Your task to perform on an android device: delete a single message in the gmail app Image 0: 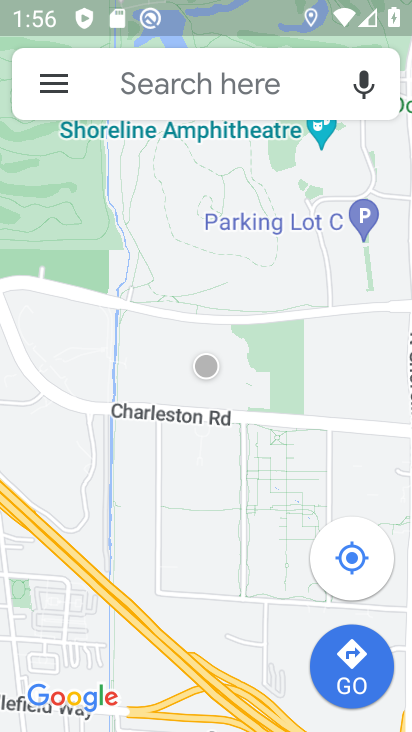
Step 0: press home button
Your task to perform on an android device: delete a single message in the gmail app Image 1: 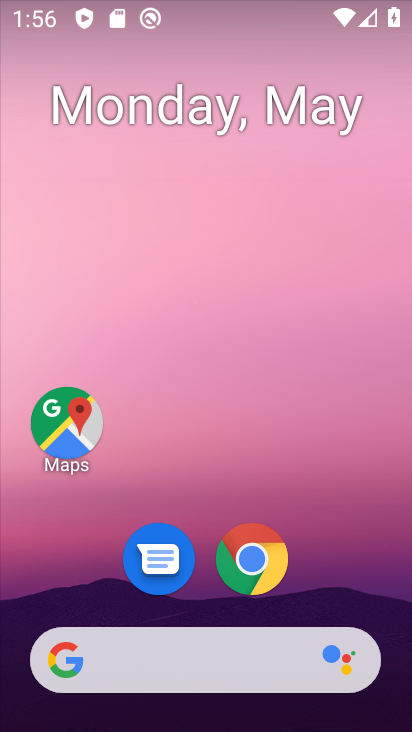
Step 1: drag from (354, 578) to (373, 10)
Your task to perform on an android device: delete a single message in the gmail app Image 2: 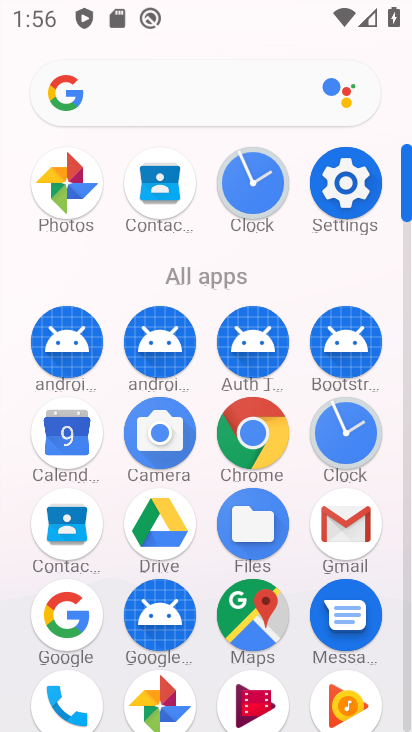
Step 2: click (331, 532)
Your task to perform on an android device: delete a single message in the gmail app Image 3: 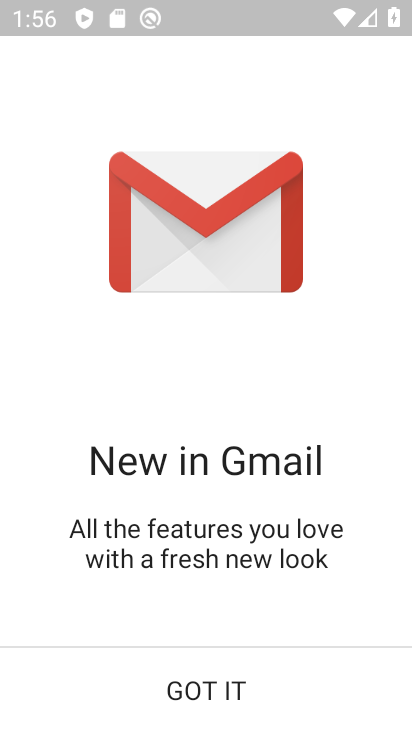
Step 3: click (208, 692)
Your task to perform on an android device: delete a single message in the gmail app Image 4: 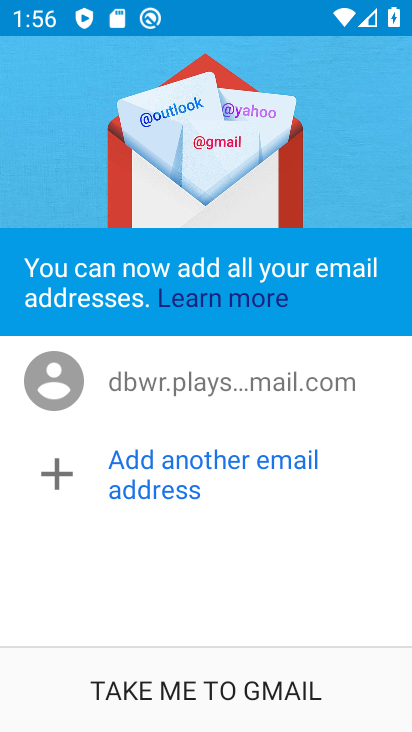
Step 4: click (193, 707)
Your task to perform on an android device: delete a single message in the gmail app Image 5: 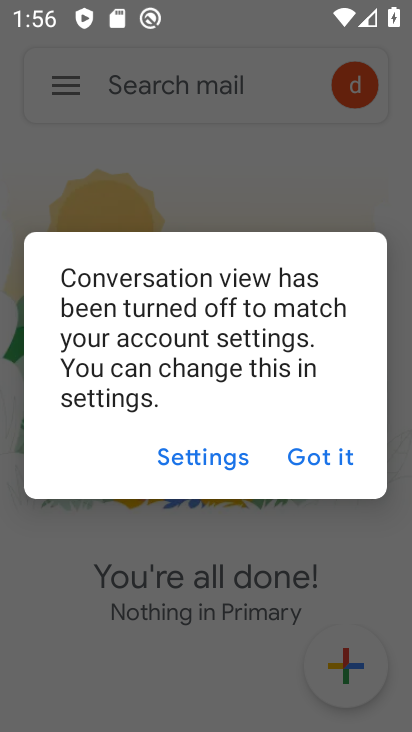
Step 5: click (312, 462)
Your task to perform on an android device: delete a single message in the gmail app Image 6: 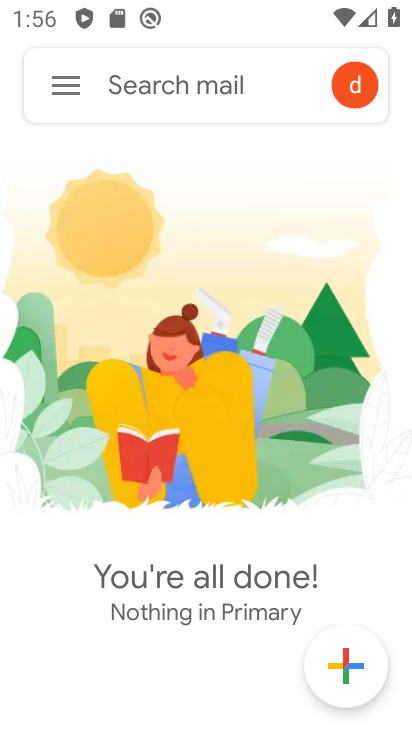
Step 6: click (67, 89)
Your task to perform on an android device: delete a single message in the gmail app Image 7: 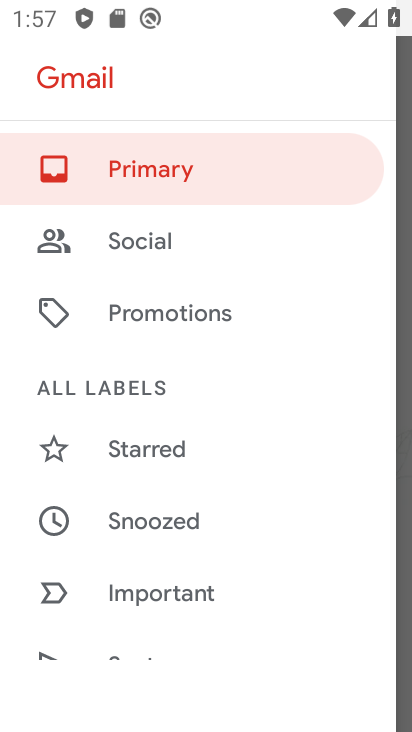
Step 7: drag from (225, 547) to (226, 115)
Your task to perform on an android device: delete a single message in the gmail app Image 8: 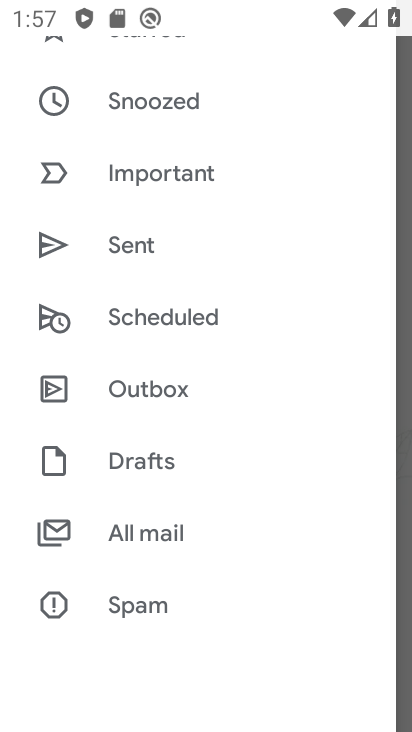
Step 8: click (175, 529)
Your task to perform on an android device: delete a single message in the gmail app Image 9: 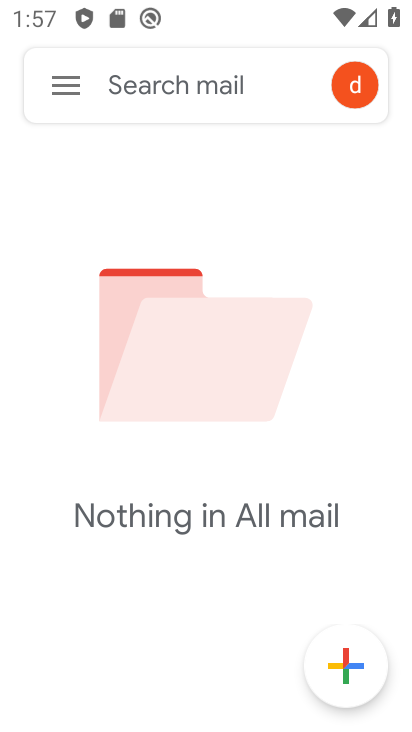
Step 9: task complete